Your task to perform on an android device: Open the stopwatch Image 0: 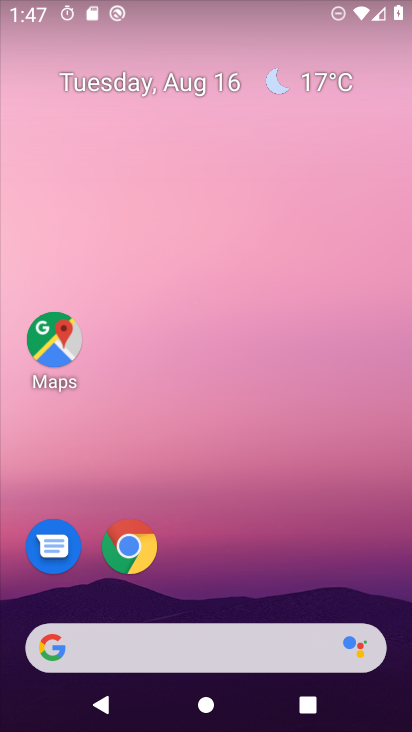
Step 0: drag from (216, 593) to (217, 173)
Your task to perform on an android device: Open the stopwatch Image 1: 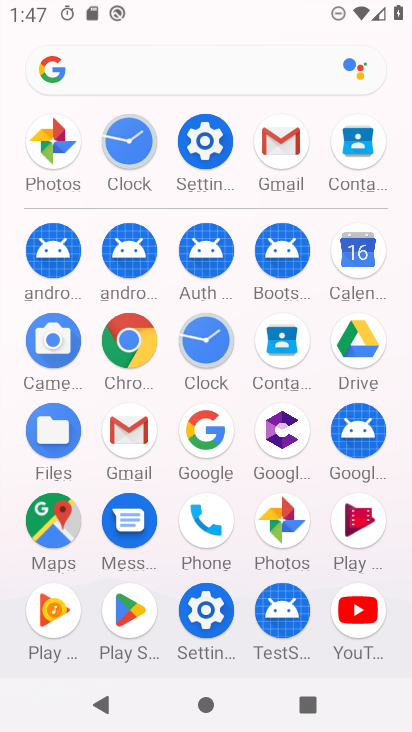
Step 1: click (207, 347)
Your task to perform on an android device: Open the stopwatch Image 2: 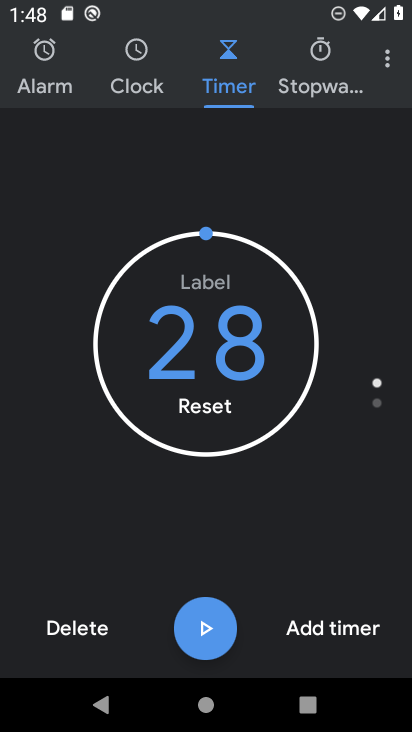
Step 2: click (319, 65)
Your task to perform on an android device: Open the stopwatch Image 3: 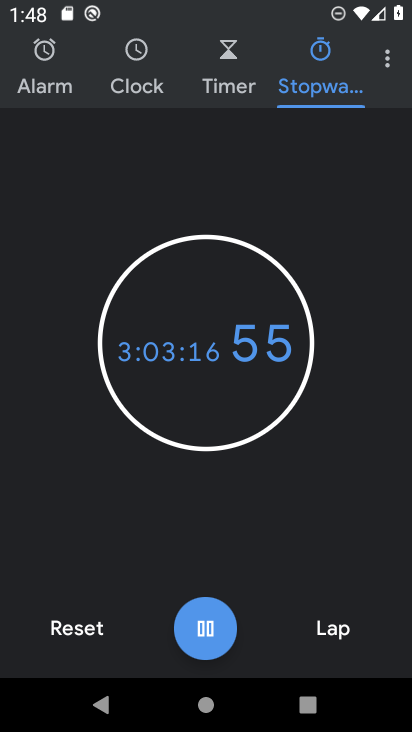
Step 3: task complete